Your task to perform on an android device: Go to CNN.com Image 0: 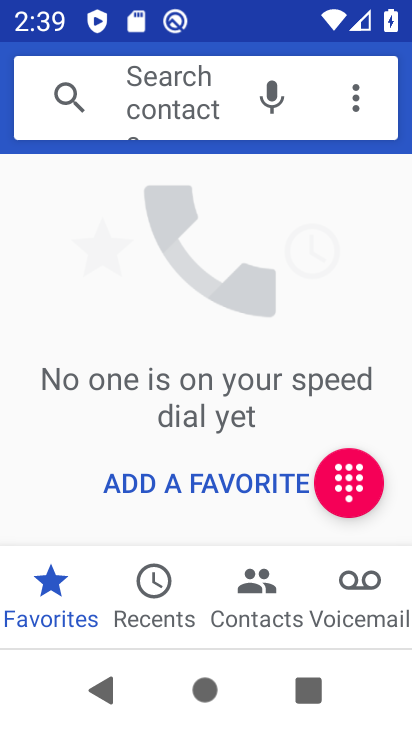
Step 0: press home button
Your task to perform on an android device: Go to CNN.com Image 1: 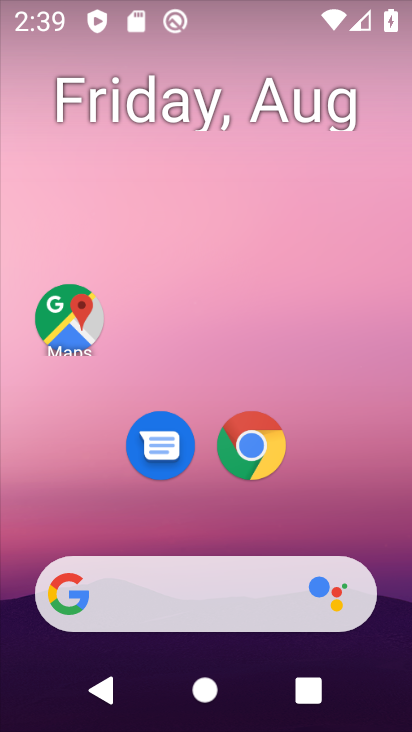
Step 1: drag from (320, 489) to (317, 115)
Your task to perform on an android device: Go to CNN.com Image 2: 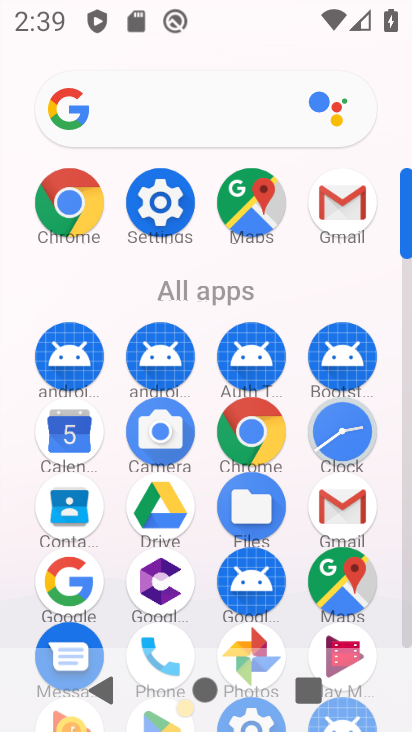
Step 2: click (259, 428)
Your task to perform on an android device: Go to CNN.com Image 3: 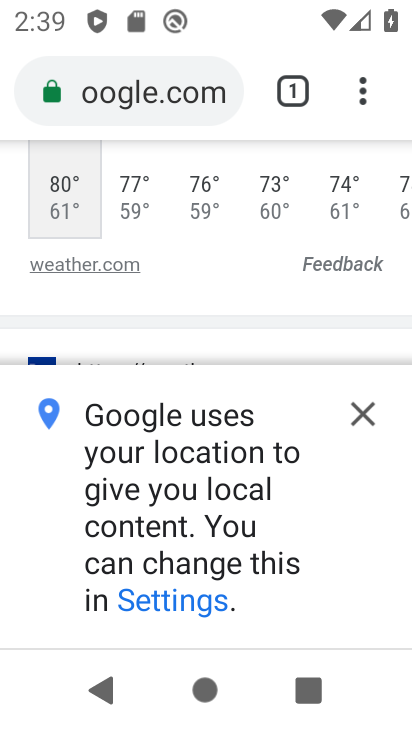
Step 3: click (193, 99)
Your task to perform on an android device: Go to CNN.com Image 4: 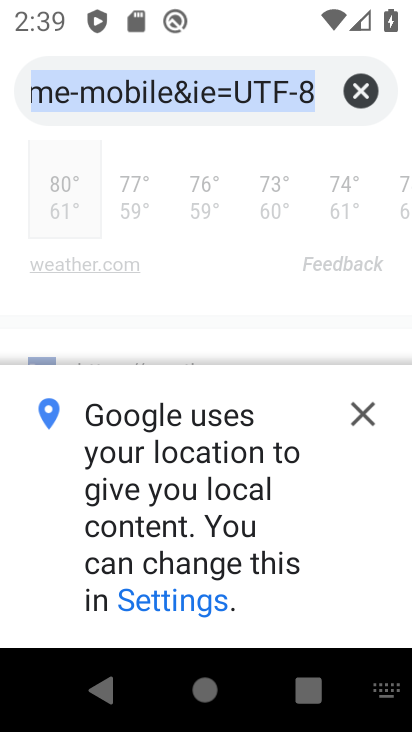
Step 4: type "cnn.com"
Your task to perform on an android device: Go to CNN.com Image 5: 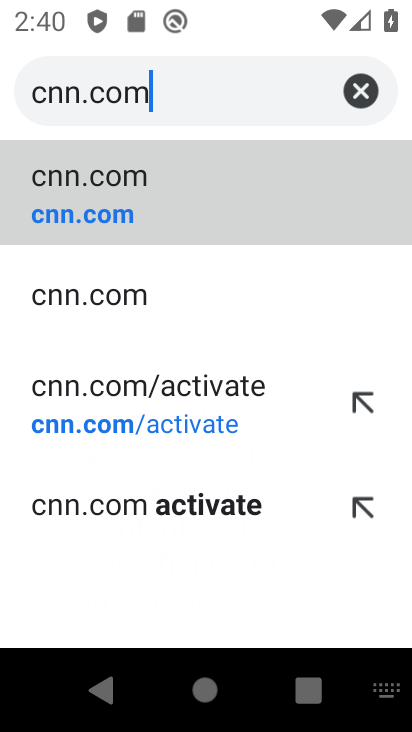
Step 5: click (101, 179)
Your task to perform on an android device: Go to CNN.com Image 6: 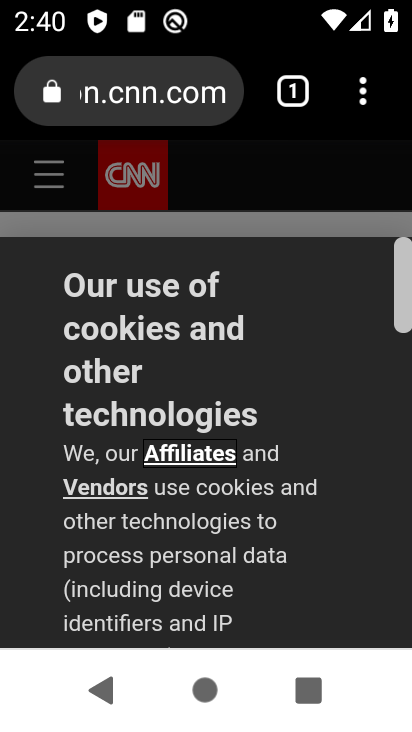
Step 6: task complete